Your task to perform on an android device: Open Yahoo.com Image 0: 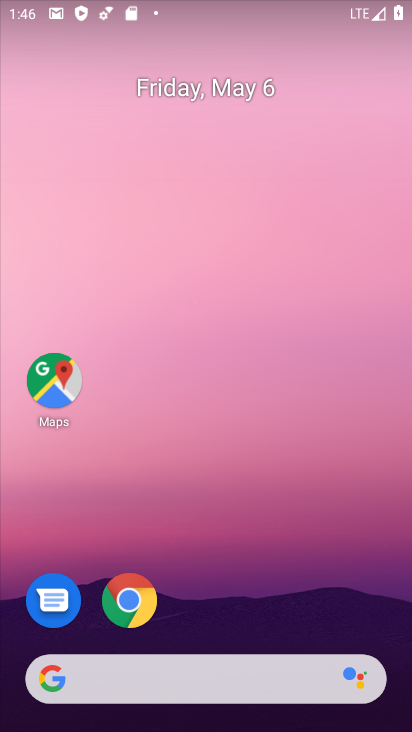
Step 0: click (130, 599)
Your task to perform on an android device: Open Yahoo.com Image 1: 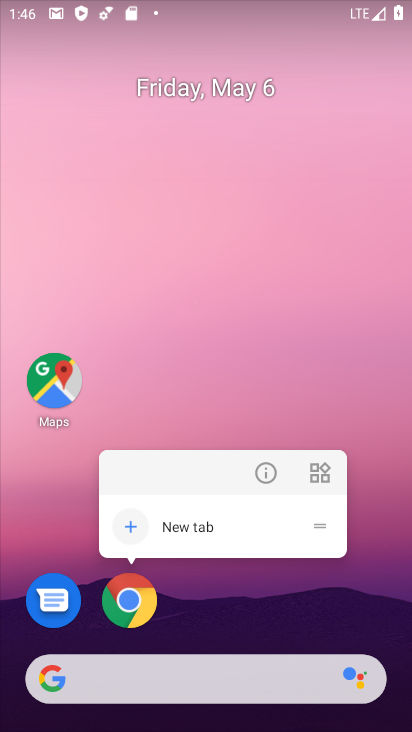
Step 1: click (132, 613)
Your task to perform on an android device: Open Yahoo.com Image 2: 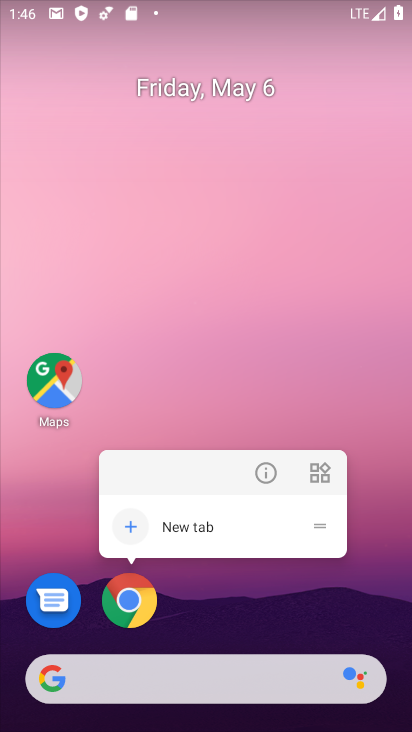
Step 2: click (137, 602)
Your task to perform on an android device: Open Yahoo.com Image 3: 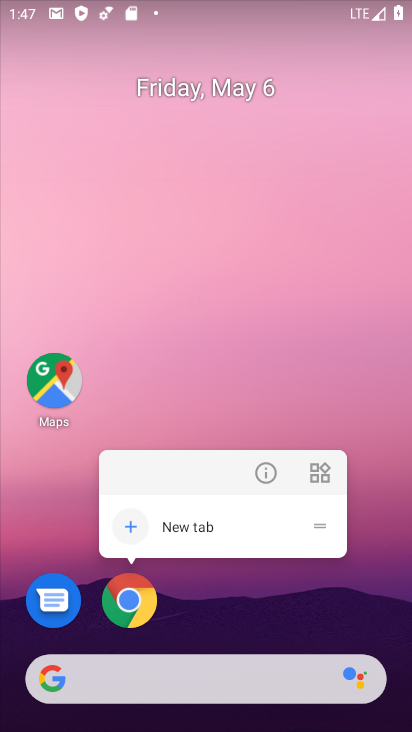
Step 3: click (135, 615)
Your task to perform on an android device: Open Yahoo.com Image 4: 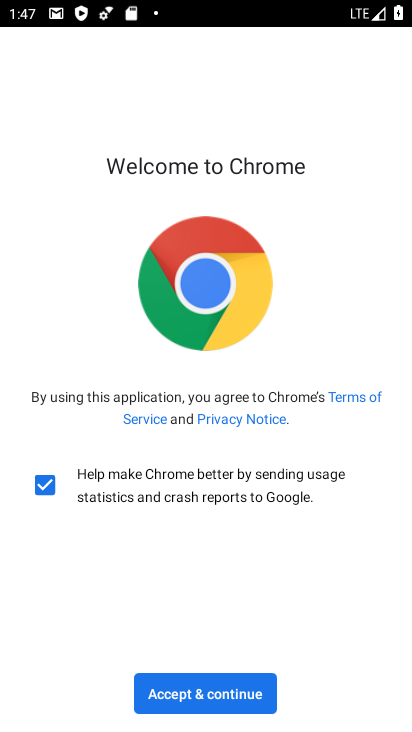
Step 4: click (206, 692)
Your task to perform on an android device: Open Yahoo.com Image 5: 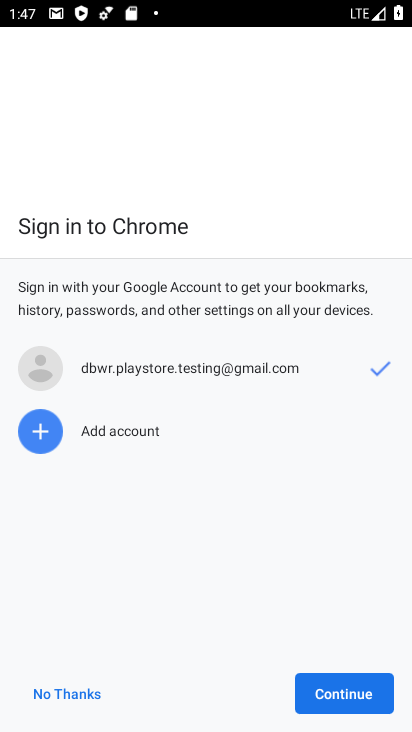
Step 5: click (324, 688)
Your task to perform on an android device: Open Yahoo.com Image 6: 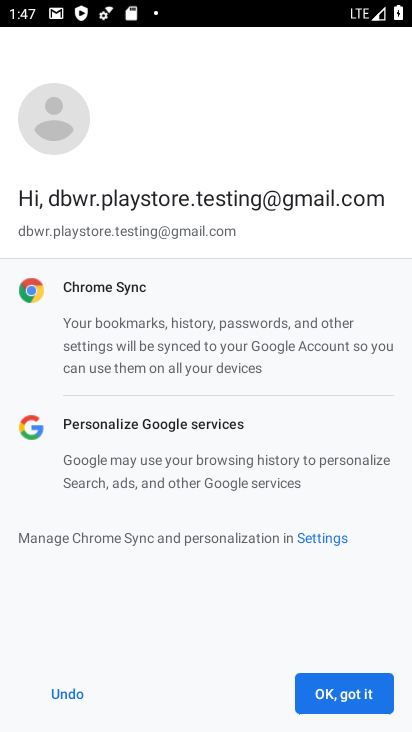
Step 6: click (358, 696)
Your task to perform on an android device: Open Yahoo.com Image 7: 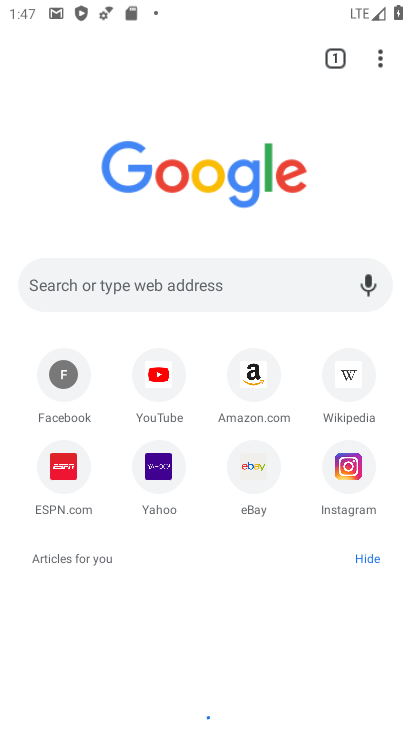
Step 7: click (151, 479)
Your task to perform on an android device: Open Yahoo.com Image 8: 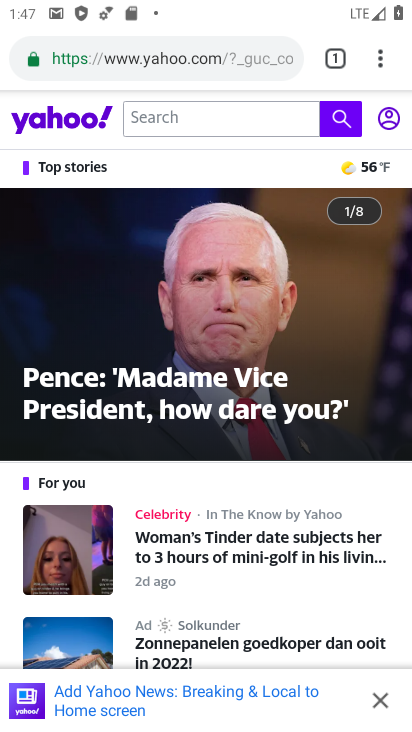
Step 8: task complete